Your task to perform on an android device: Open sound settings Image 0: 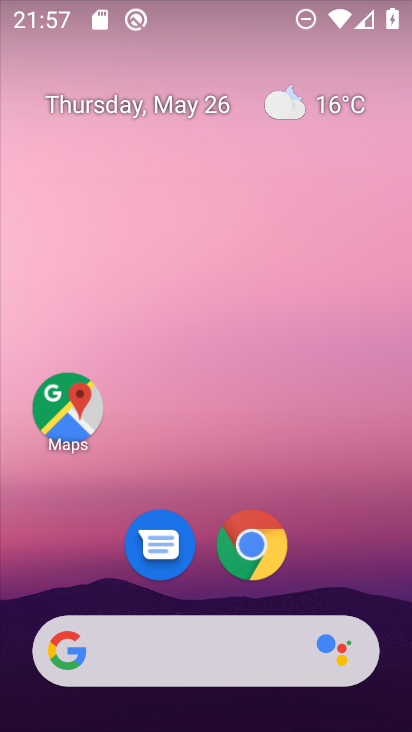
Step 0: drag from (328, 536) to (351, 71)
Your task to perform on an android device: Open sound settings Image 1: 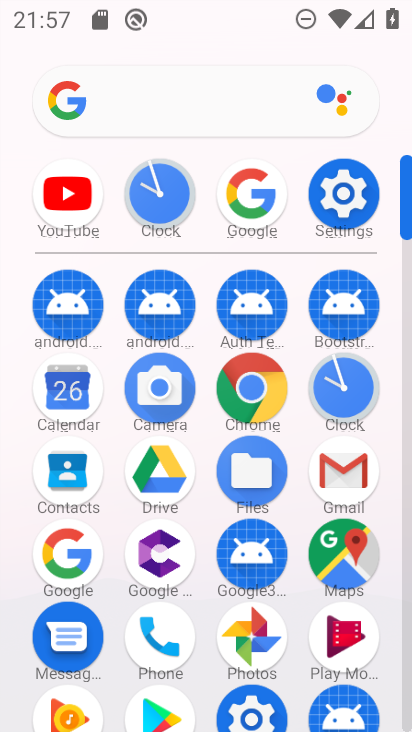
Step 1: click (344, 199)
Your task to perform on an android device: Open sound settings Image 2: 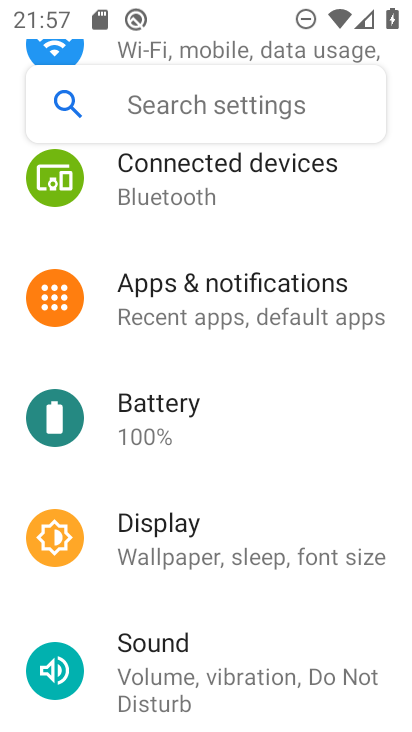
Step 2: click (220, 667)
Your task to perform on an android device: Open sound settings Image 3: 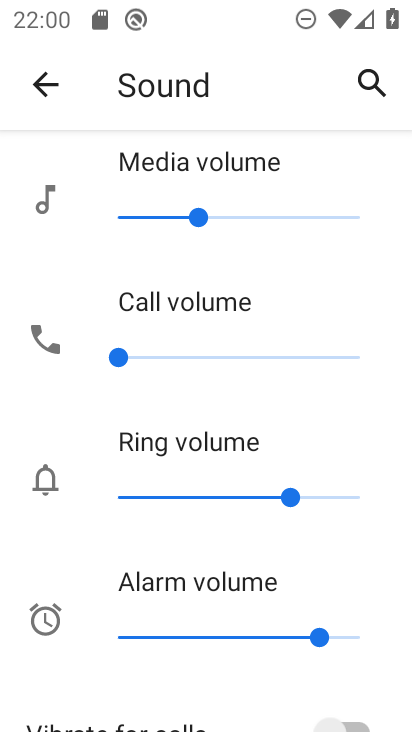
Step 3: task complete